Your task to perform on an android device: Go to location settings Image 0: 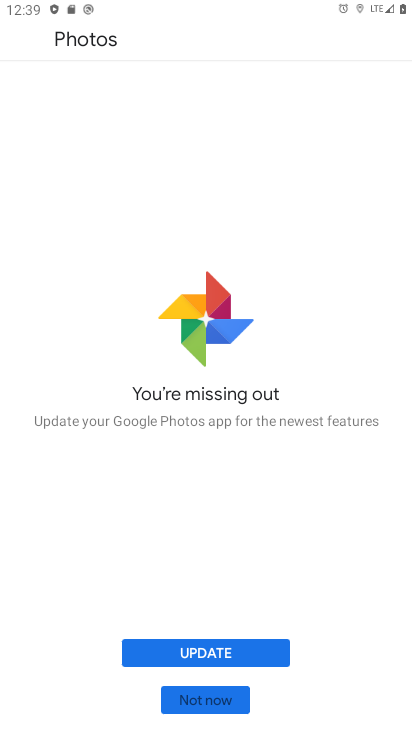
Step 0: press home button
Your task to perform on an android device: Go to location settings Image 1: 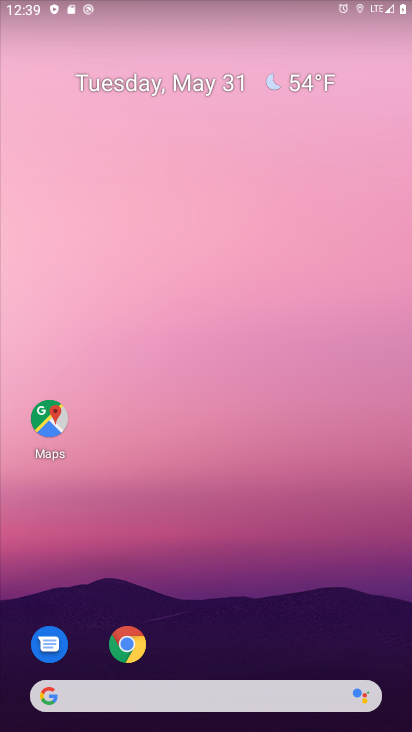
Step 1: drag from (259, 639) to (259, 259)
Your task to perform on an android device: Go to location settings Image 2: 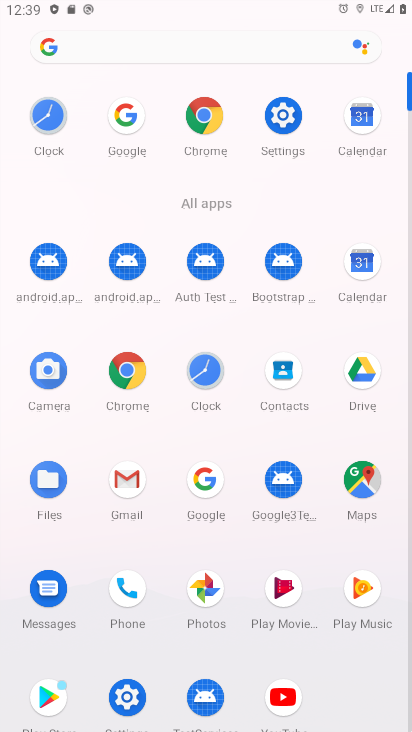
Step 2: click (283, 114)
Your task to perform on an android device: Go to location settings Image 3: 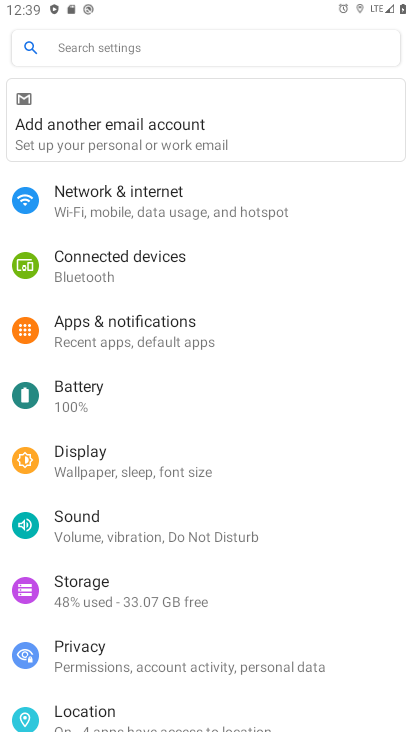
Step 3: click (84, 718)
Your task to perform on an android device: Go to location settings Image 4: 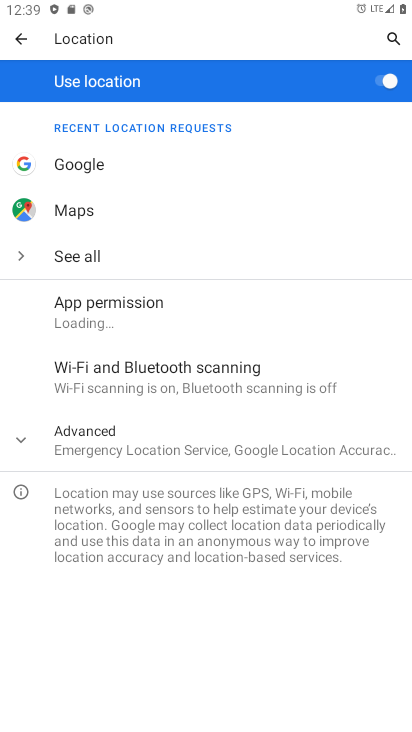
Step 4: click (113, 446)
Your task to perform on an android device: Go to location settings Image 5: 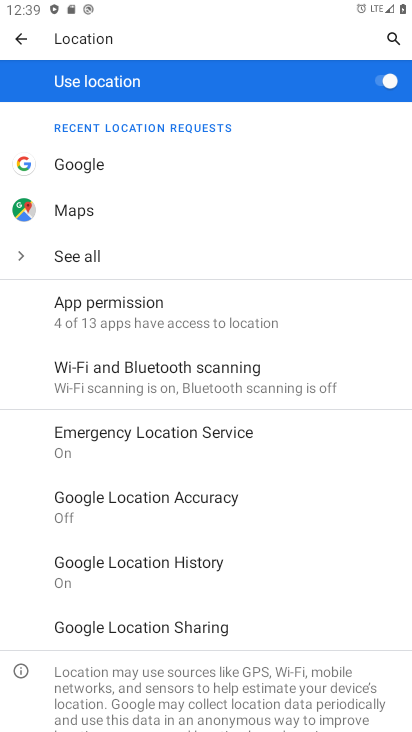
Step 5: task complete